Your task to perform on an android device: turn on the 24-hour format for clock Image 0: 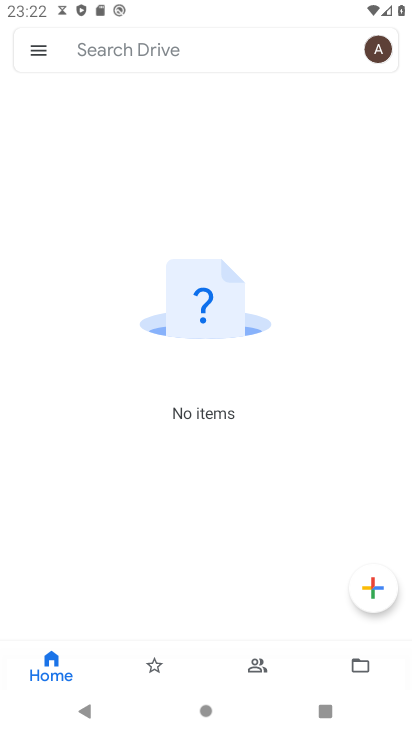
Step 0: press home button
Your task to perform on an android device: turn on the 24-hour format for clock Image 1: 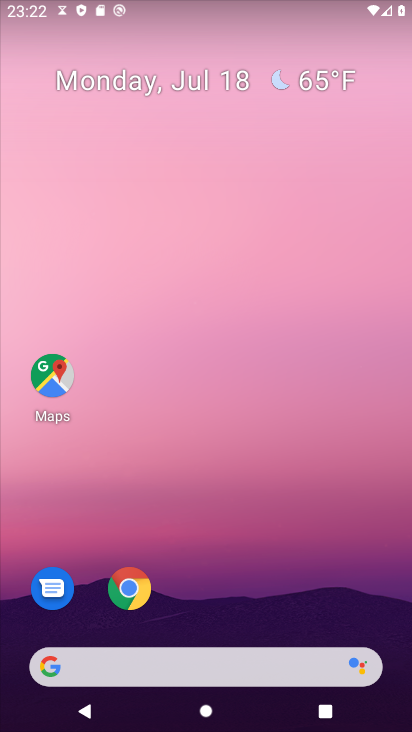
Step 1: drag from (263, 574) to (252, 70)
Your task to perform on an android device: turn on the 24-hour format for clock Image 2: 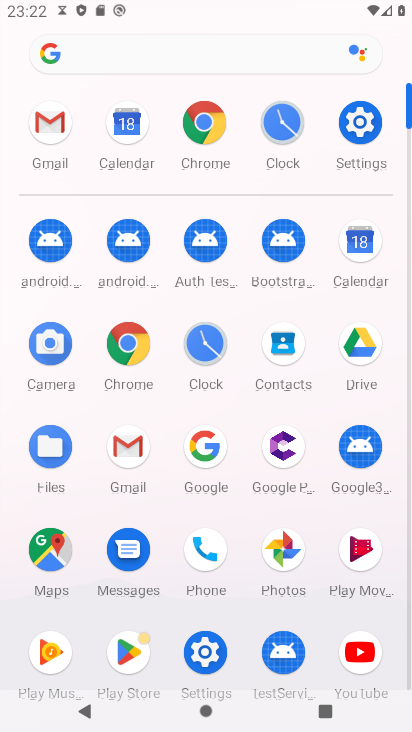
Step 2: click (198, 341)
Your task to perform on an android device: turn on the 24-hour format for clock Image 3: 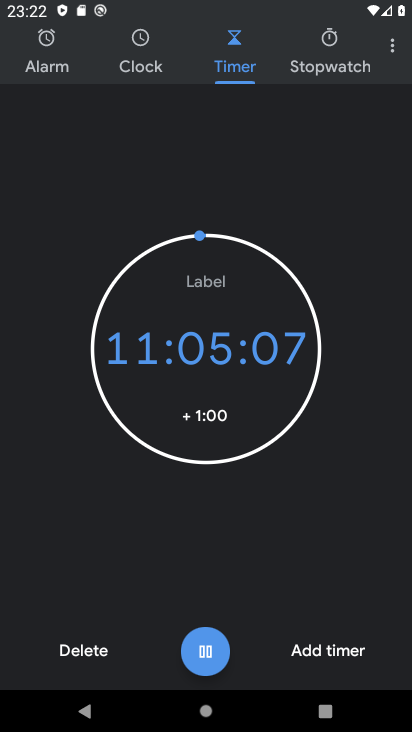
Step 3: click (392, 41)
Your task to perform on an android device: turn on the 24-hour format for clock Image 4: 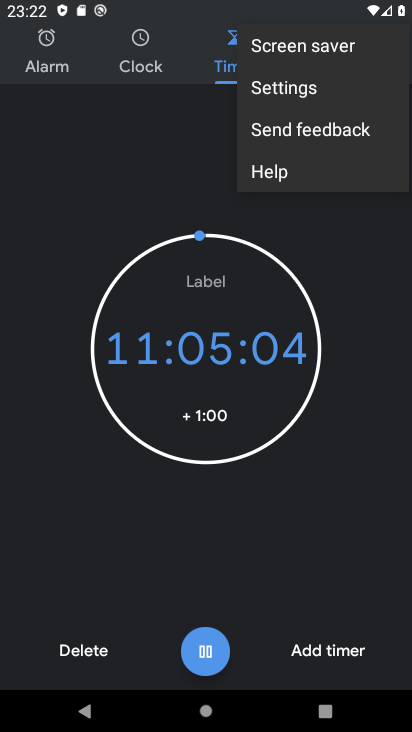
Step 4: click (292, 82)
Your task to perform on an android device: turn on the 24-hour format for clock Image 5: 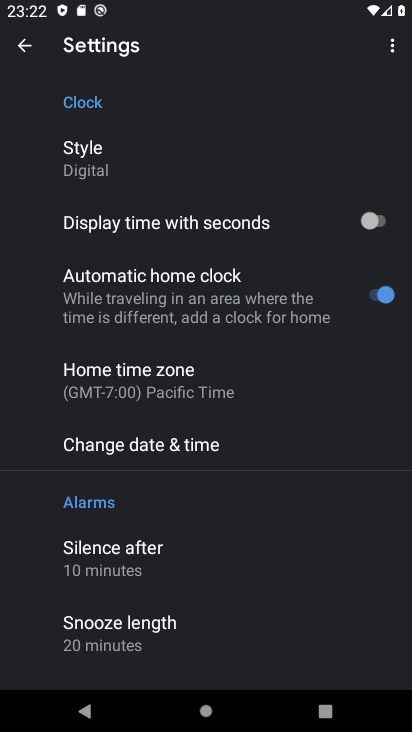
Step 5: click (175, 450)
Your task to perform on an android device: turn on the 24-hour format for clock Image 6: 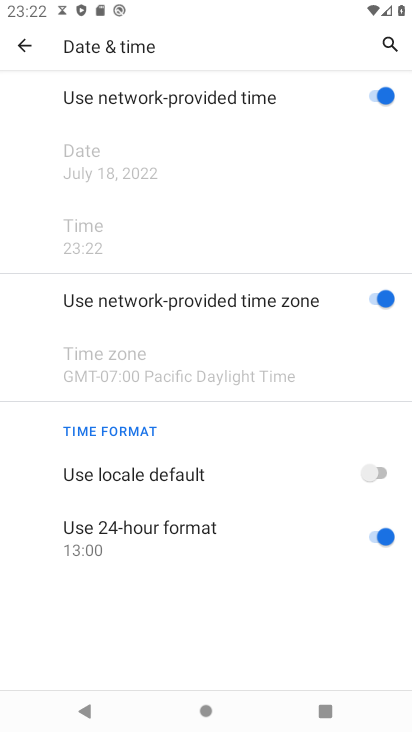
Step 6: task complete